Your task to perform on an android device: Go to CNN.com Image 0: 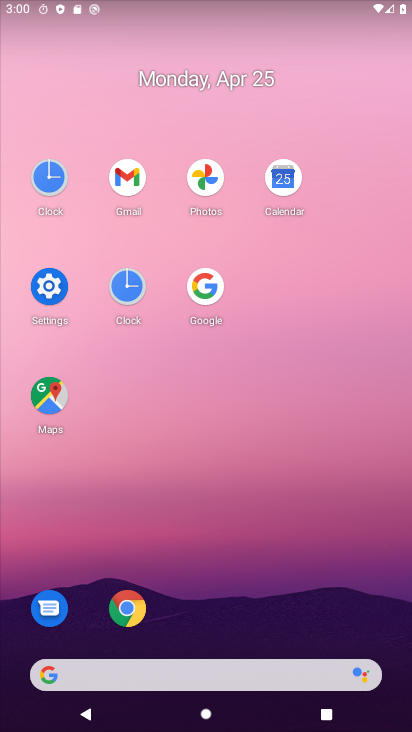
Step 0: click (122, 614)
Your task to perform on an android device: Go to CNN.com Image 1: 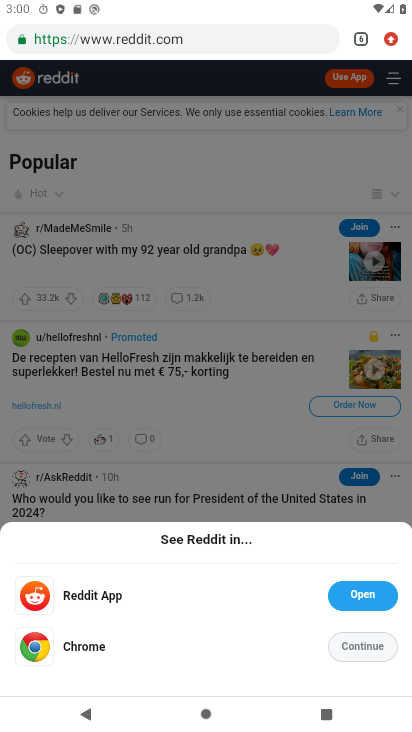
Step 1: click (361, 38)
Your task to perform on an android device: Go to CNN.com Image 2: 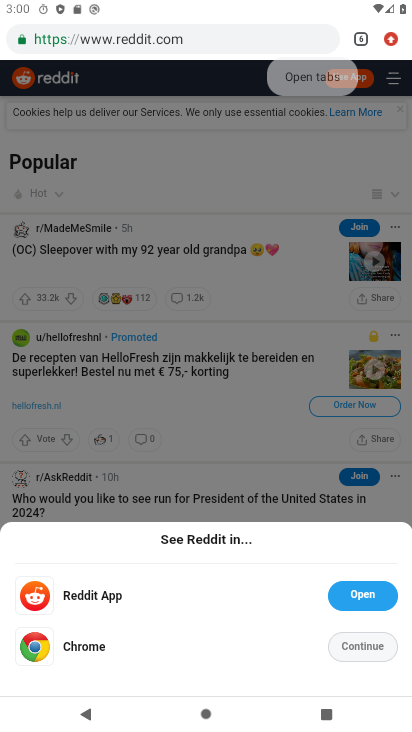
Step 2: click (355, 28)
Your task to perform on an android device: Go to CNN.com Image 3: 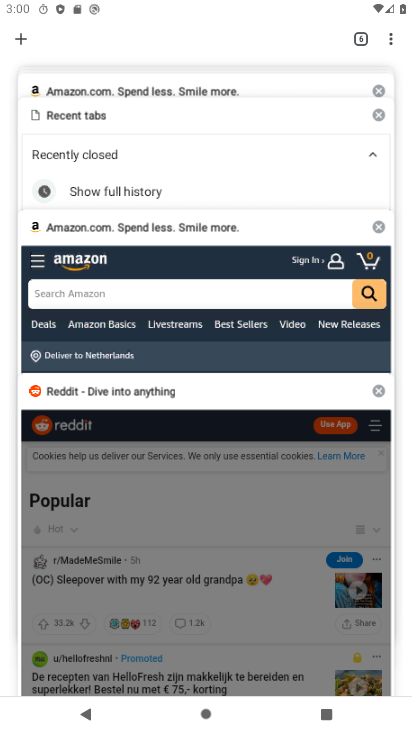
Step 3: click (21, 43)
Your task to perform on an android device: Go to CNN.com Image 4: 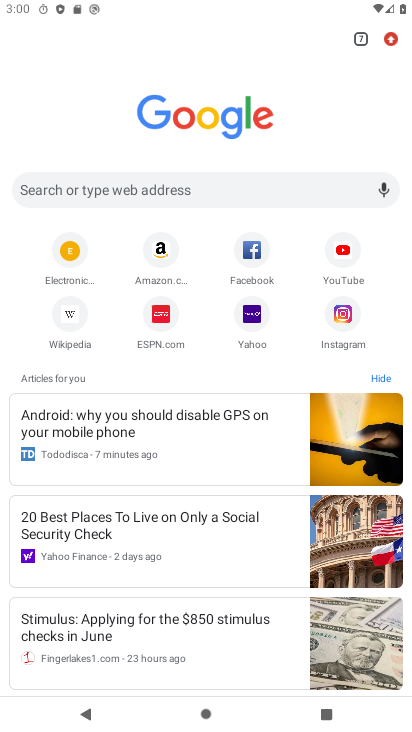
Step 4: click (149, 190)
Your task to perform on an android device: Go to CNN.com Image 5: 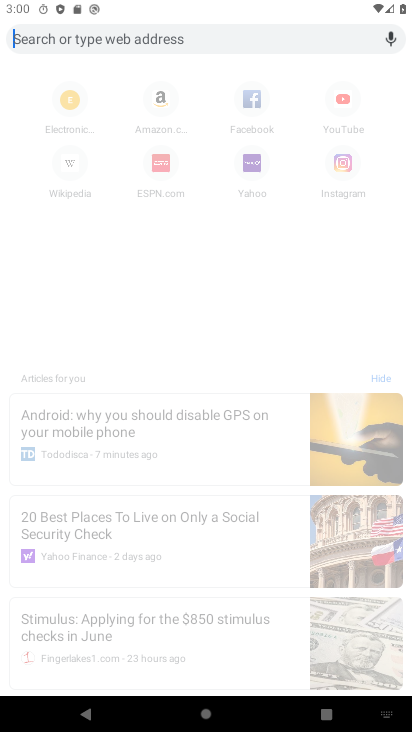
Step 5: type "cnn"
Your task to perform on an android device: Go to CNN.com Image 6: 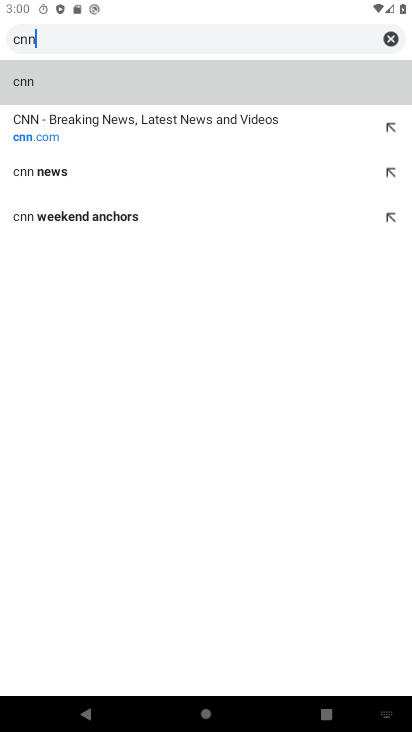
Step 6: click (38, 137)
Your task to perform on an android device: Go to CNN.com Image 7: 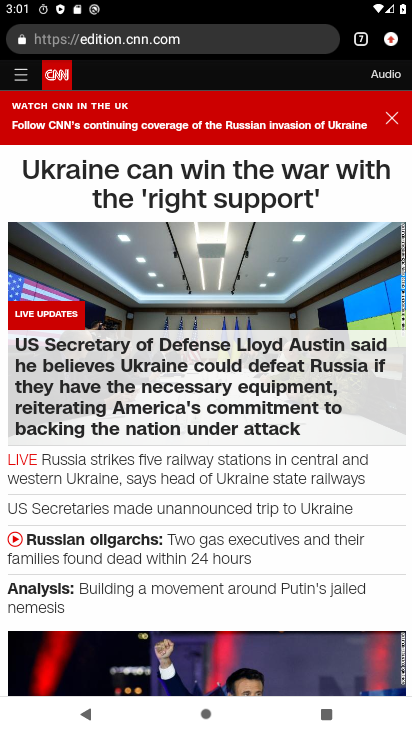
Step 7: task complete